Your task to perform on an android device: What is the capital of Norway? Image 0: 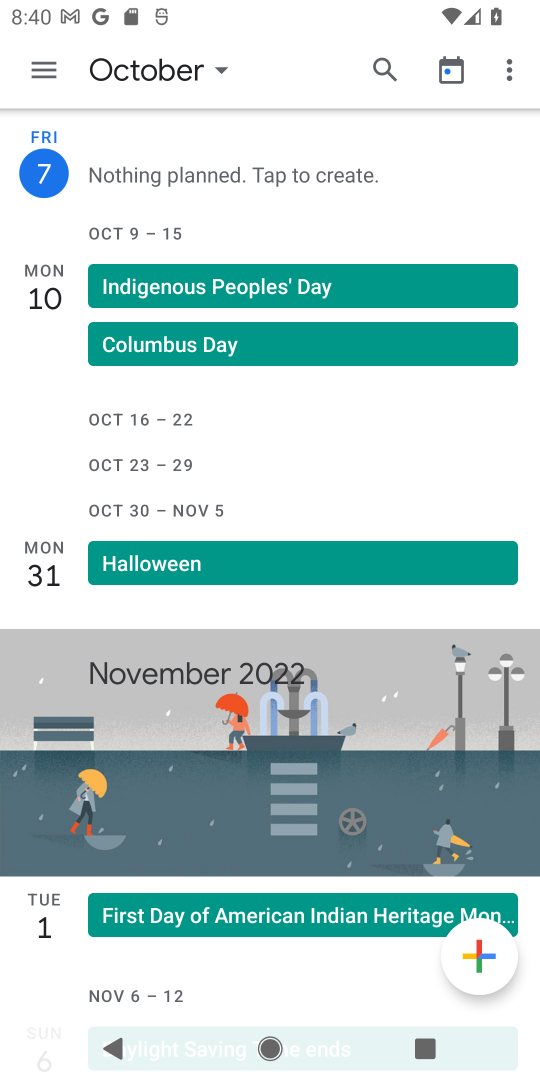
Step 0: press home button
Your task to perform on an android device: What is the capital of Norway? Image 1: 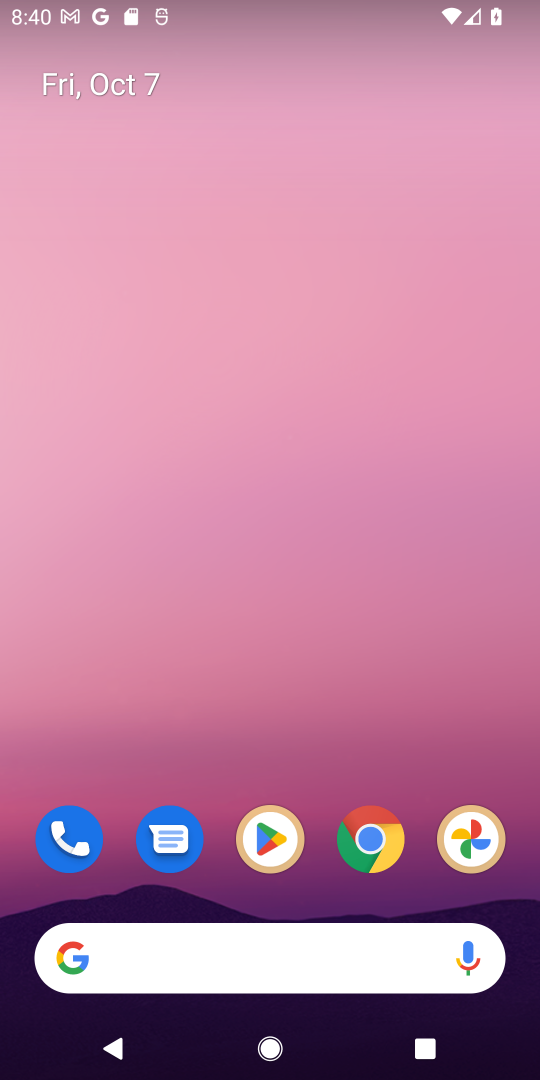
Step 1: click (364, 849)
Your task to perform on an android device: What is the capital of Norway? Image 2: 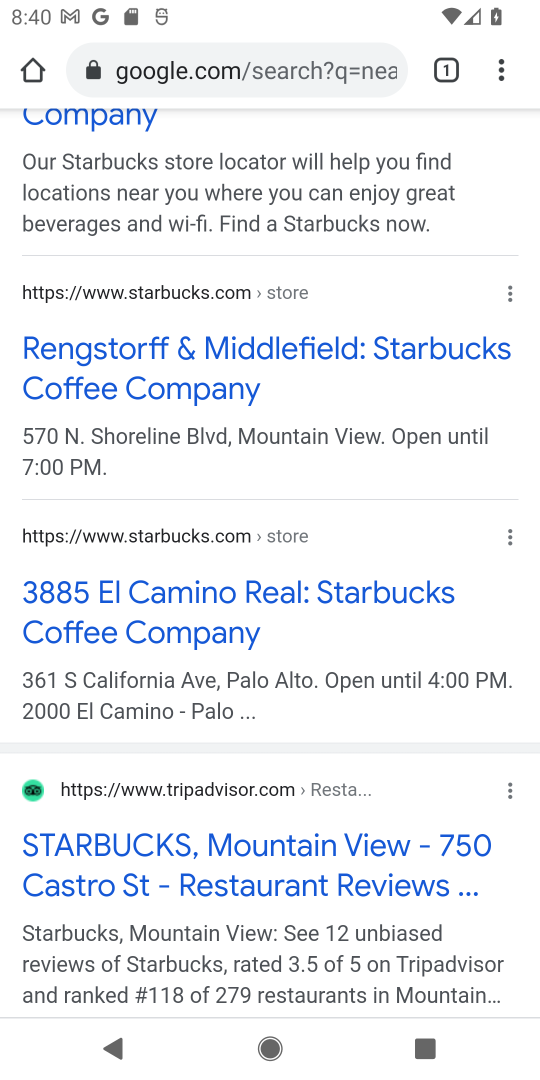
Step 2: click (341, 67)
Your task to perform on an android device: What is the capital of Norway? Image 3: 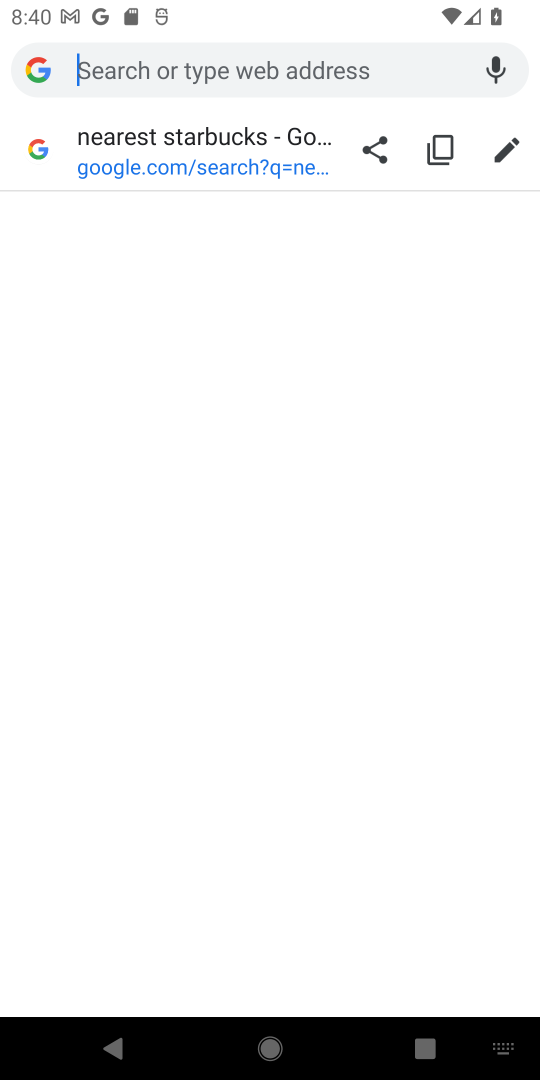
Step 3: type "capital of norway"
Your task to perform on an android device: What is the capital of Norway? Image 4: 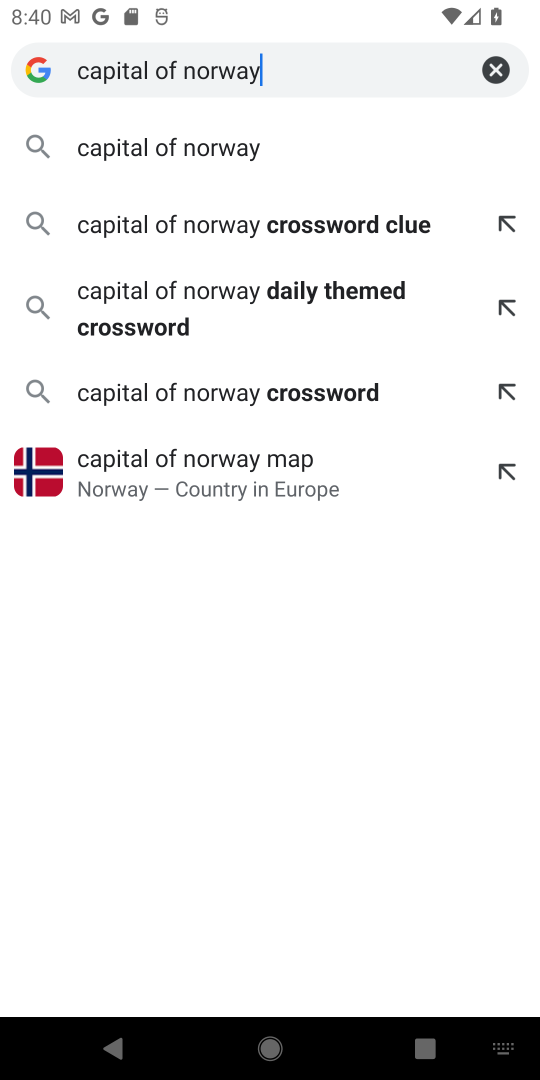
Step 4: click (194, 138)
Your task to perform on an android device: What is the capital of Norway? Image 5: 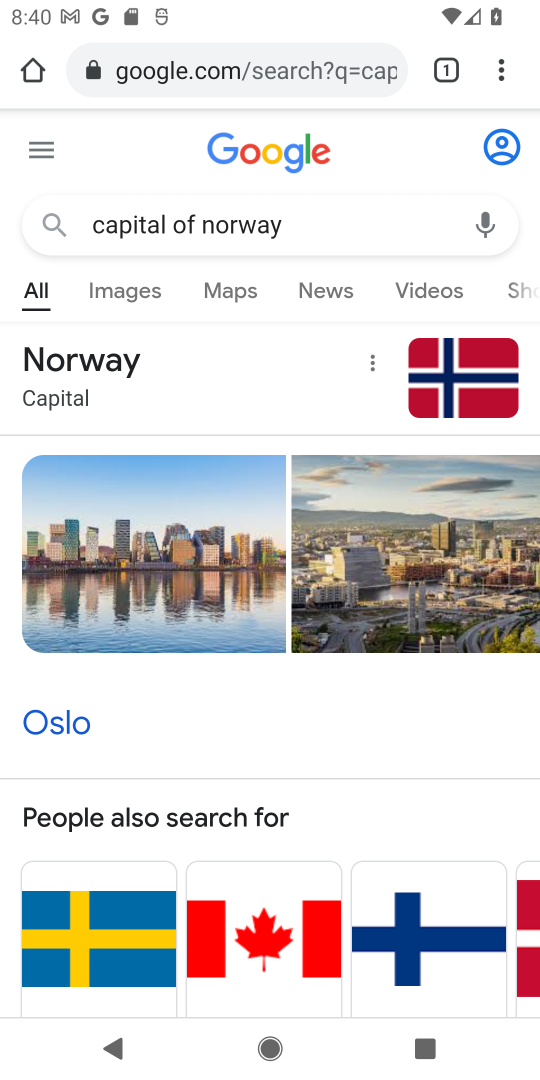
Step 5: drag from (178, 720) to (316, 302)
Your task to perform on an android device: What is the capital of Norway? Image 6: 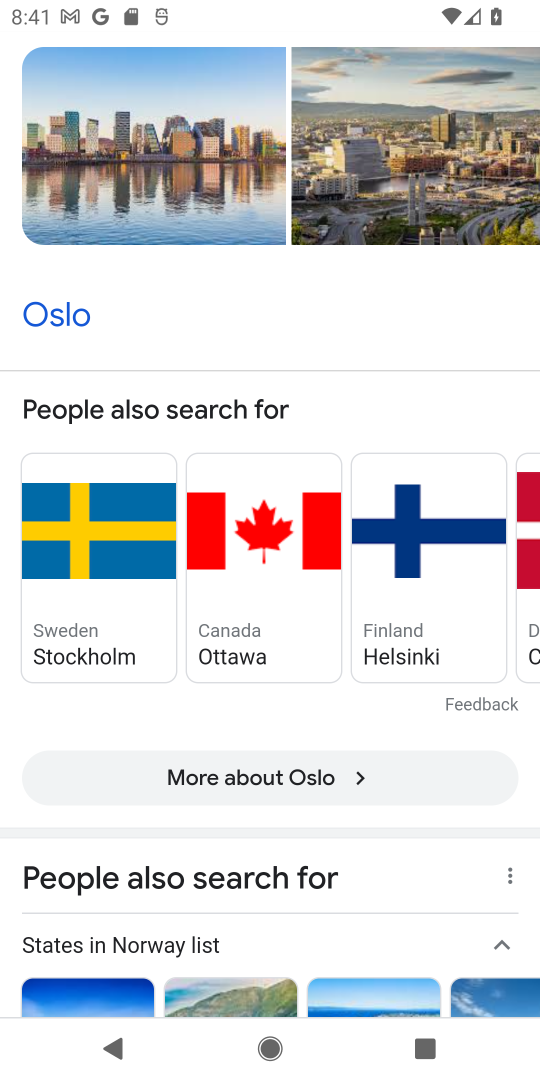
Step 6: drag from (238, 776) to (340, 346)
Your task to perform on an android device: What is the capital of Norway? Image 7: 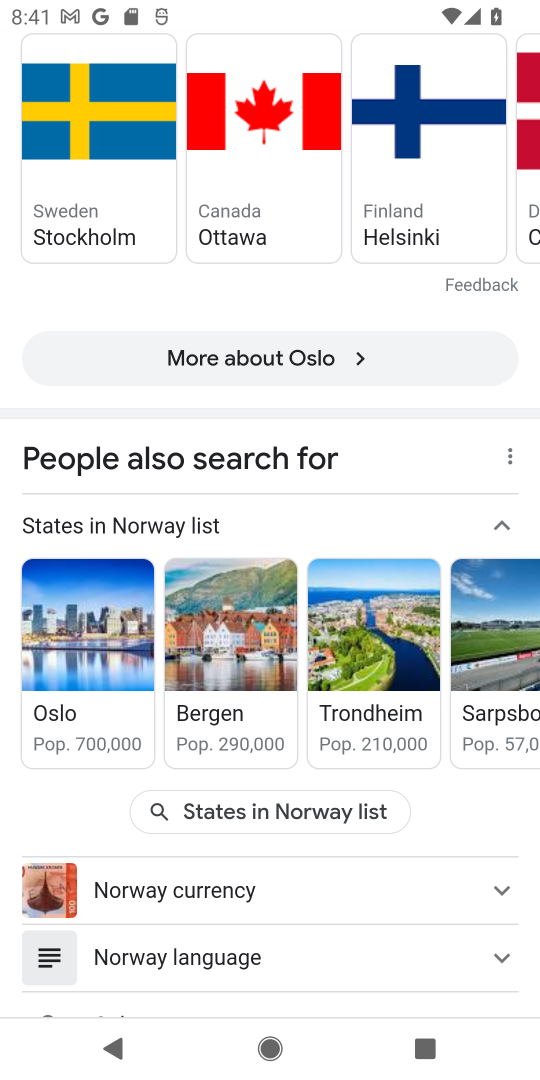
Step 7: drag from (338, 355) to (335, 855)
Your task to perform on an android device: What is the capital of Norway? Image 8: 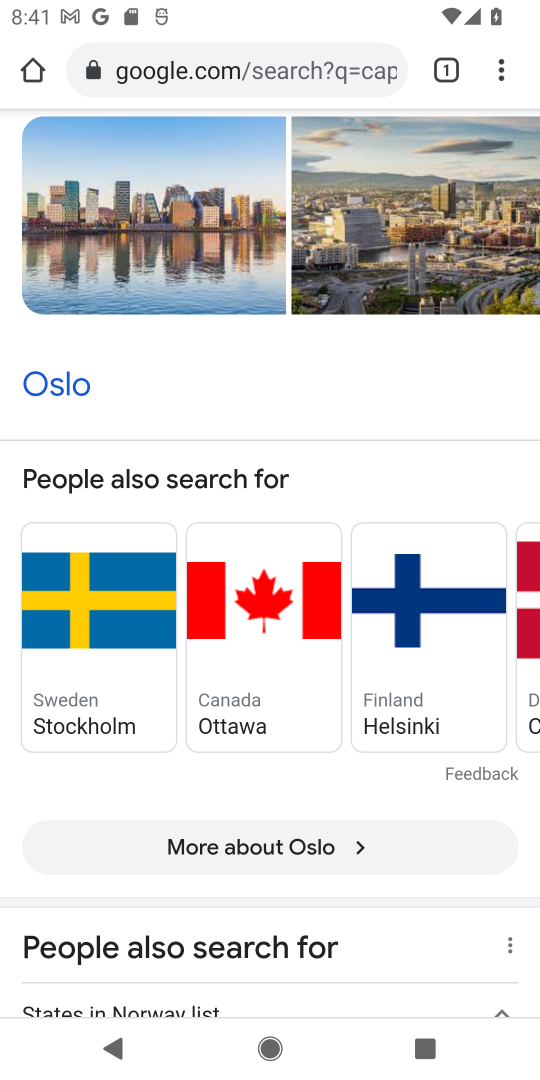
Step 8: drag from (368, 369) to (374, 872)
Your task to perform on an android device: What is the capital of Norway? Image 9: 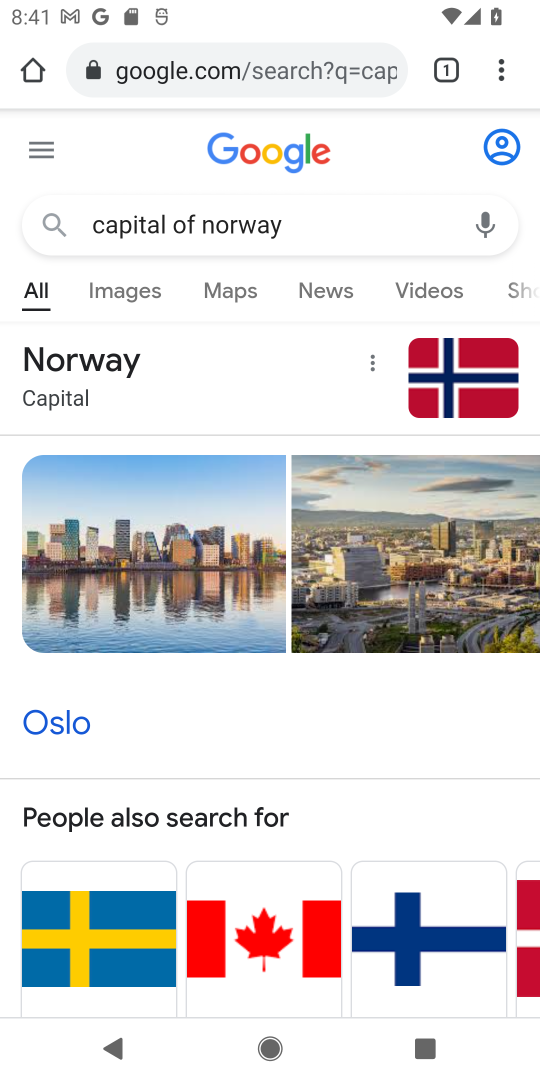
Step 9: drag from (273, 771) to (337, 177)
Your task to perform on an android device: What is the capital of Norway? Image 10: 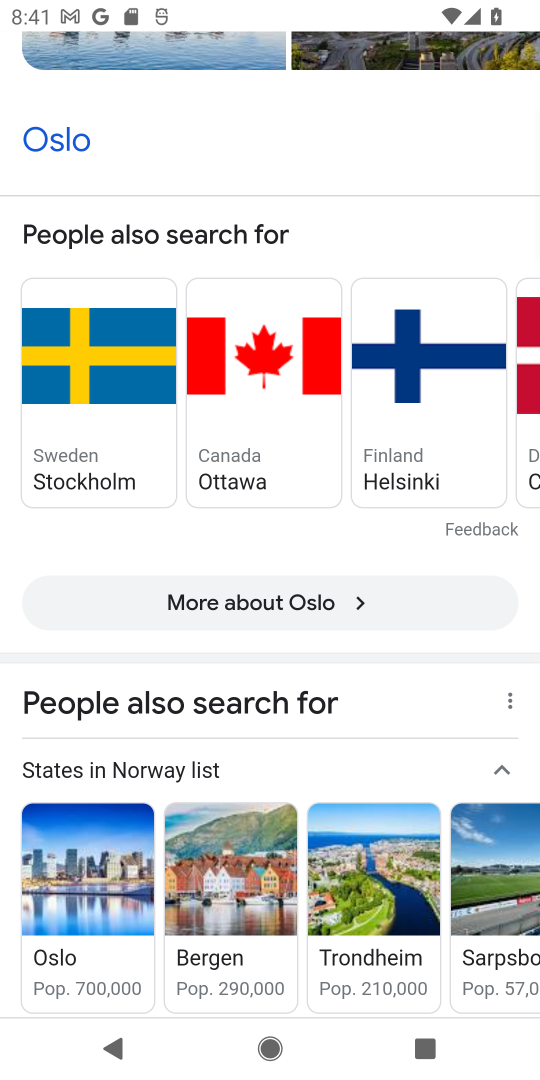
Step 10: drag from (293, 151) to (275, 983)
Your task to perform on an android device: What is the capital of Norway? Image 11: 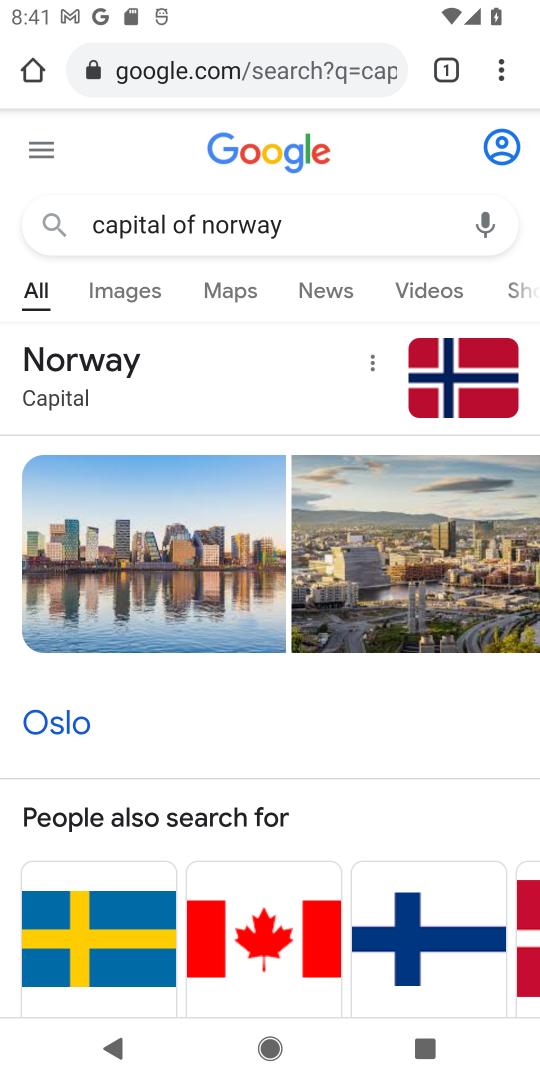
Step 11: click (72, 394)
Your task to perform on an android device: What is the capital of Norway? Image 12: 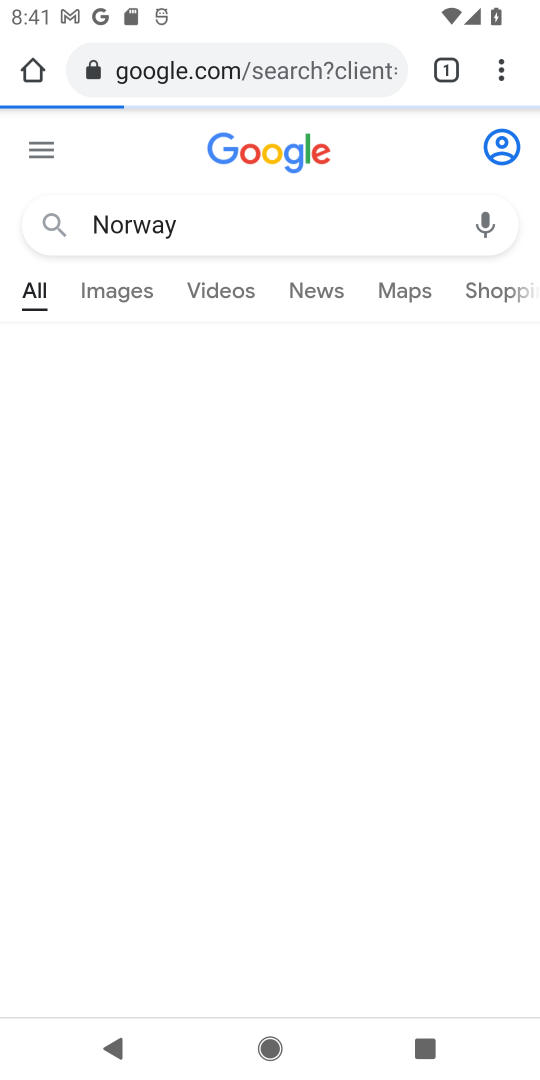
Step 12: click (66, 358)
Your task to perform on an android device: What is the capital of Norway? Image 13: 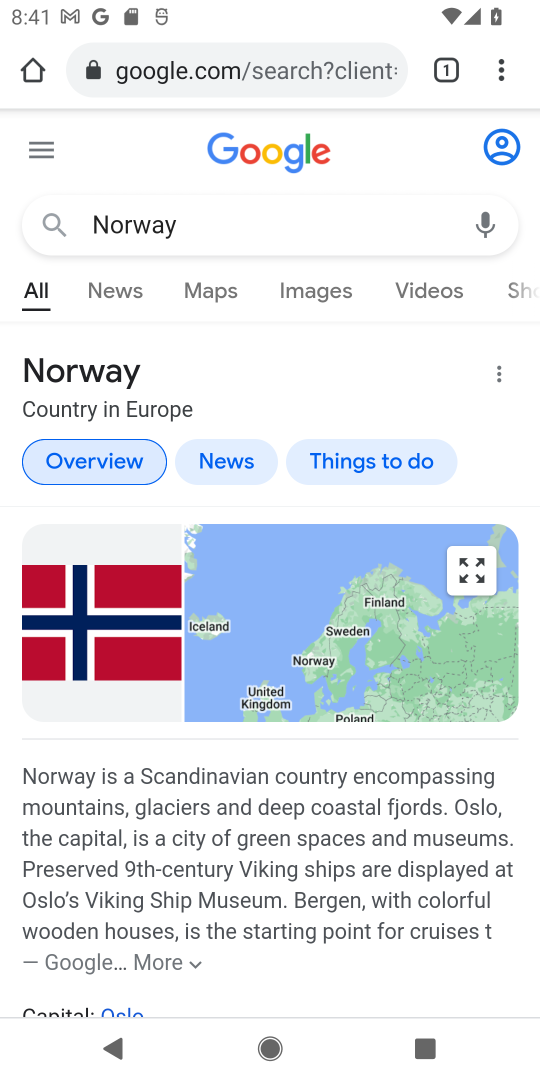
Step 13: task complete